Your task to perform on an android device: What's on the menu at McDonalds? Image 0: 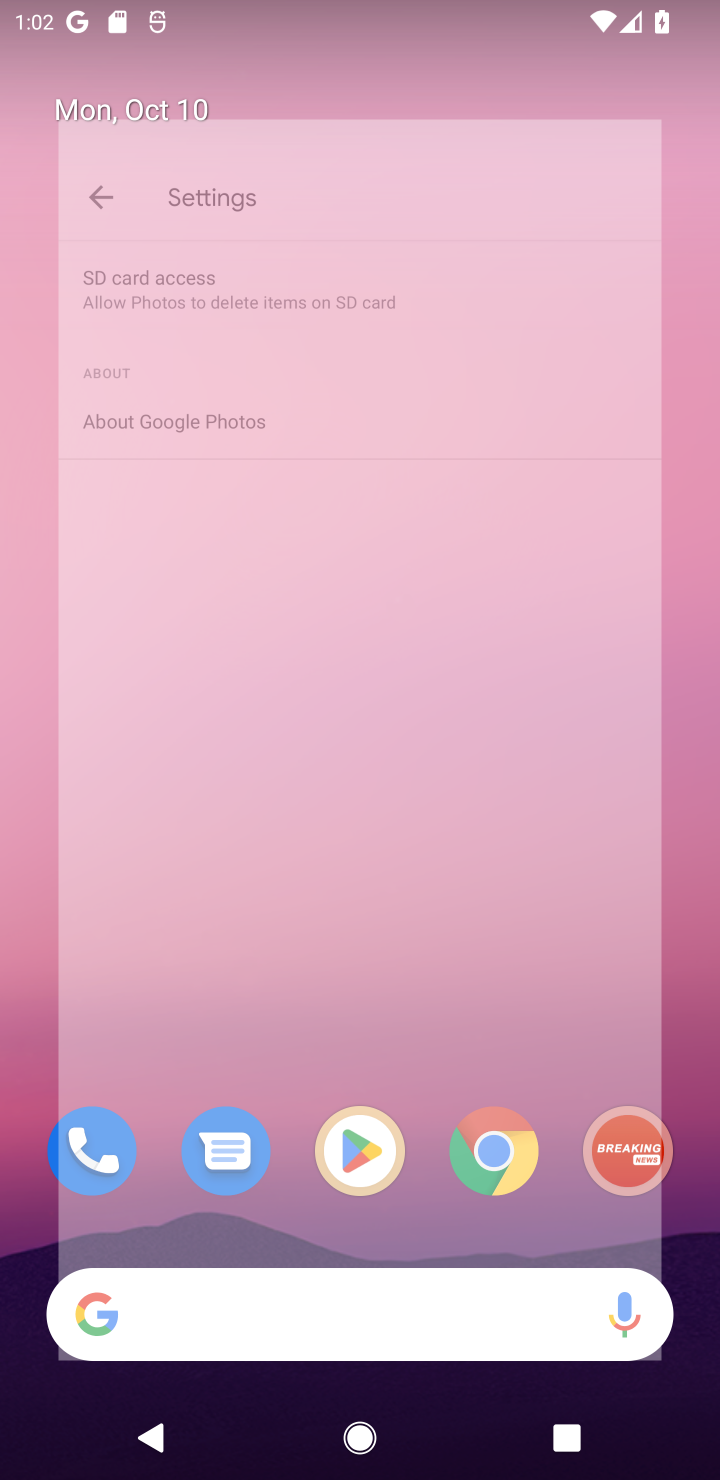
Step 0: press home button
Your task to perform on an android device: What's on the menu at McDonalds? Image 1: 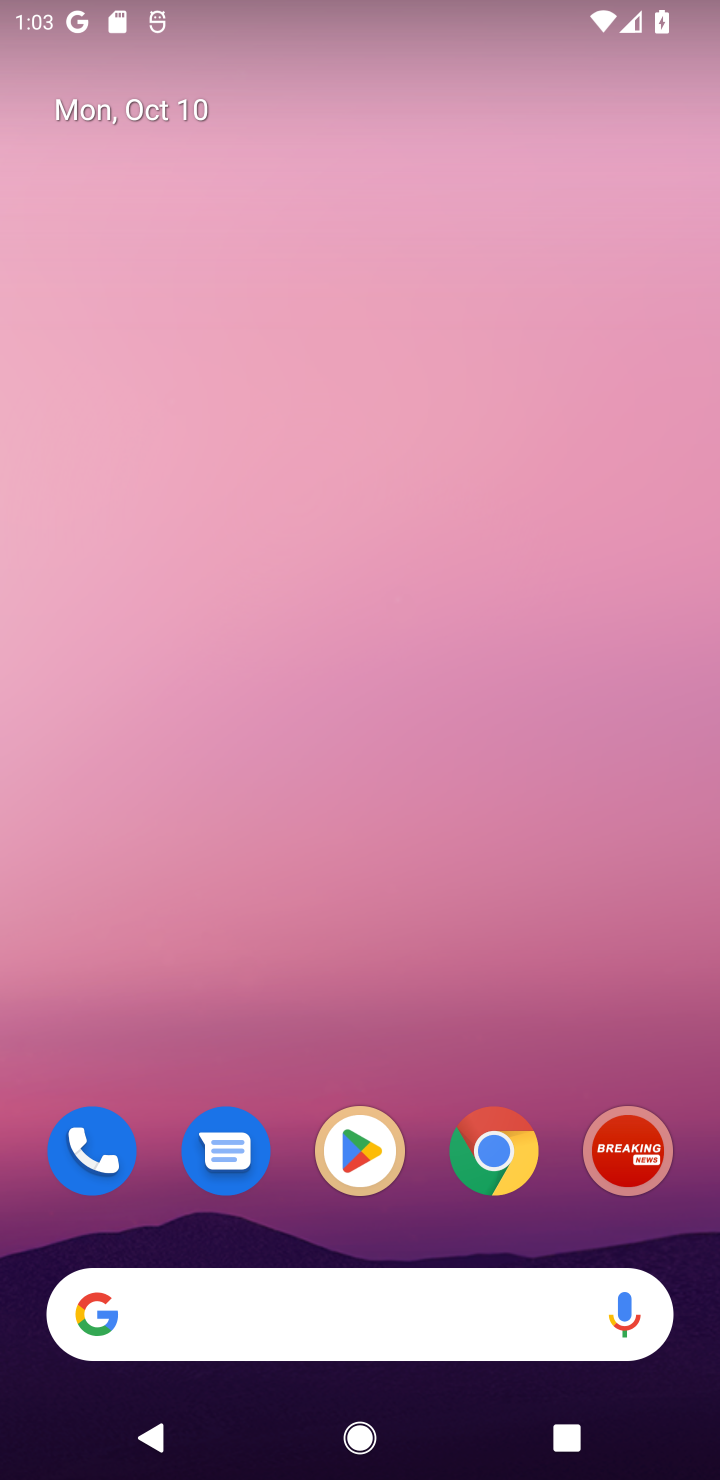
Step 1: click (372, 1296)
Your task to perform on an android device: What's on the menu at McDonalds? Image 2: 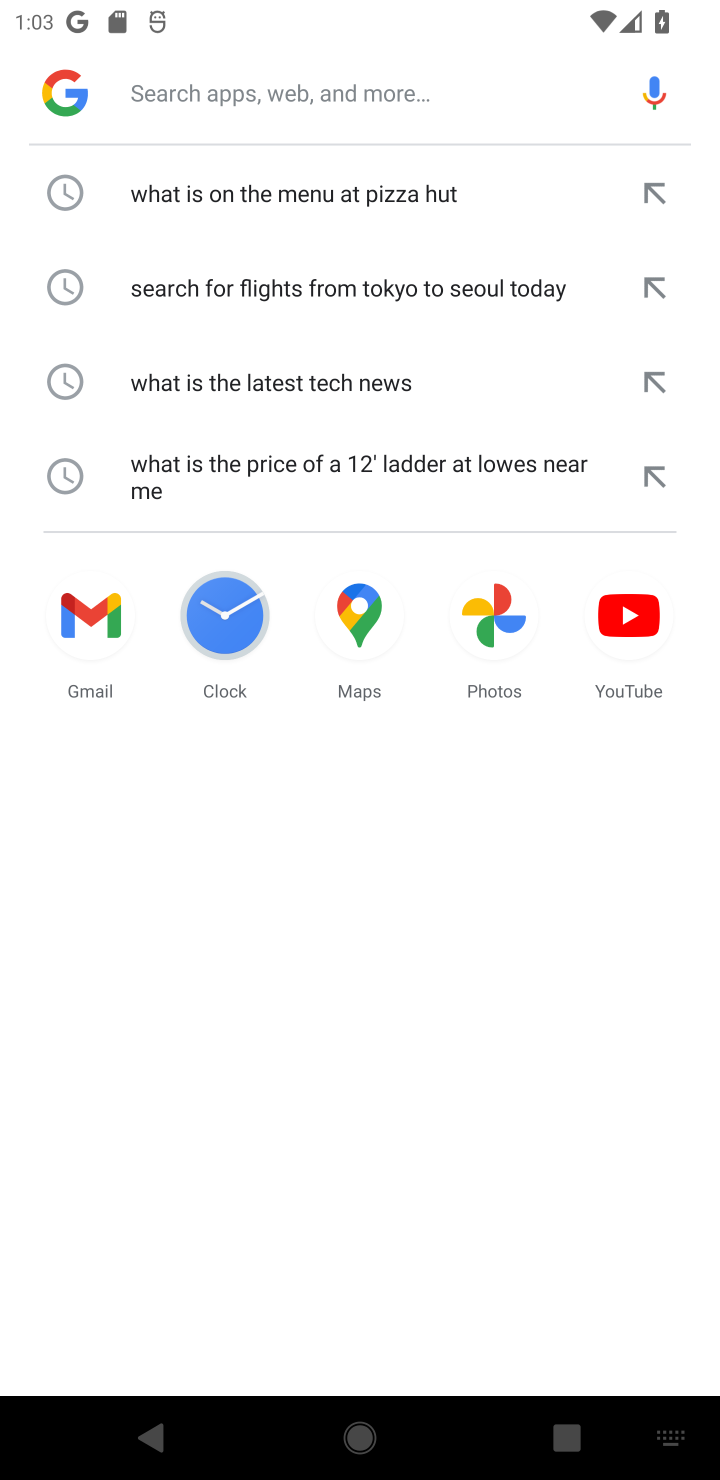
Step 2: type "What's on the menu at McDonalds?"
Your task to perform on an android device: What's on the menu at McDonalds? Image 3: 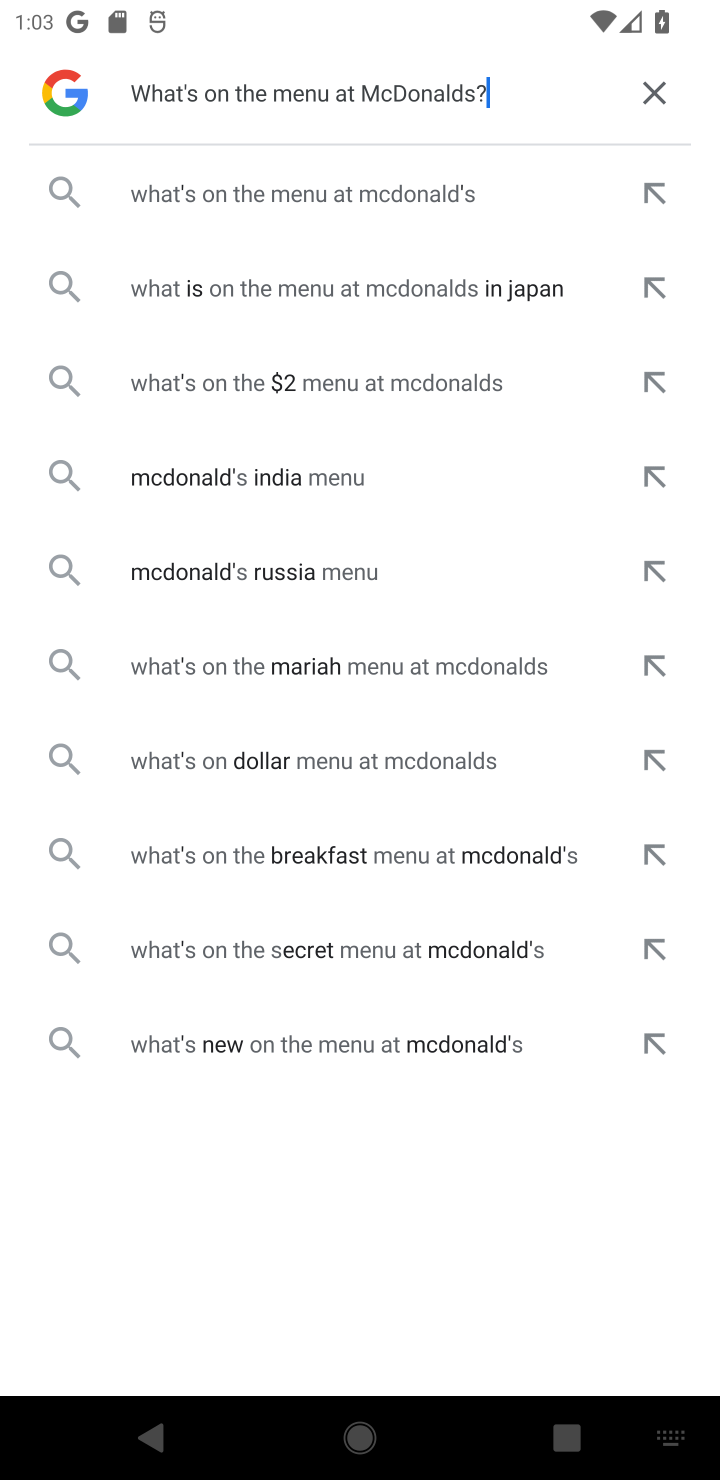
Step 3: click (306, 196)
Your task to perform on an android device: What's on the menu at McDonalds? Image 4: 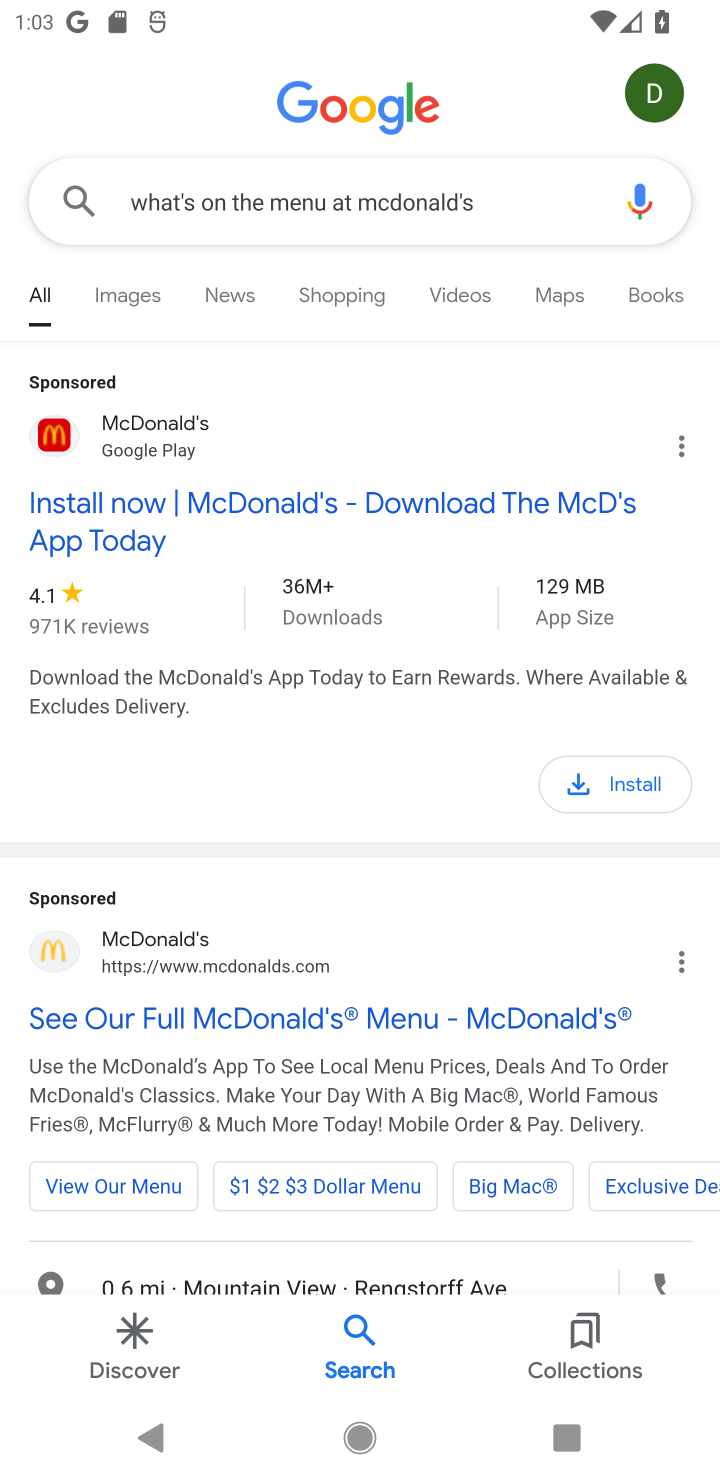
Step 4: click (378, 1010)
Your task to perform on an android device: What's on the menu at McDonalds? Image 5: 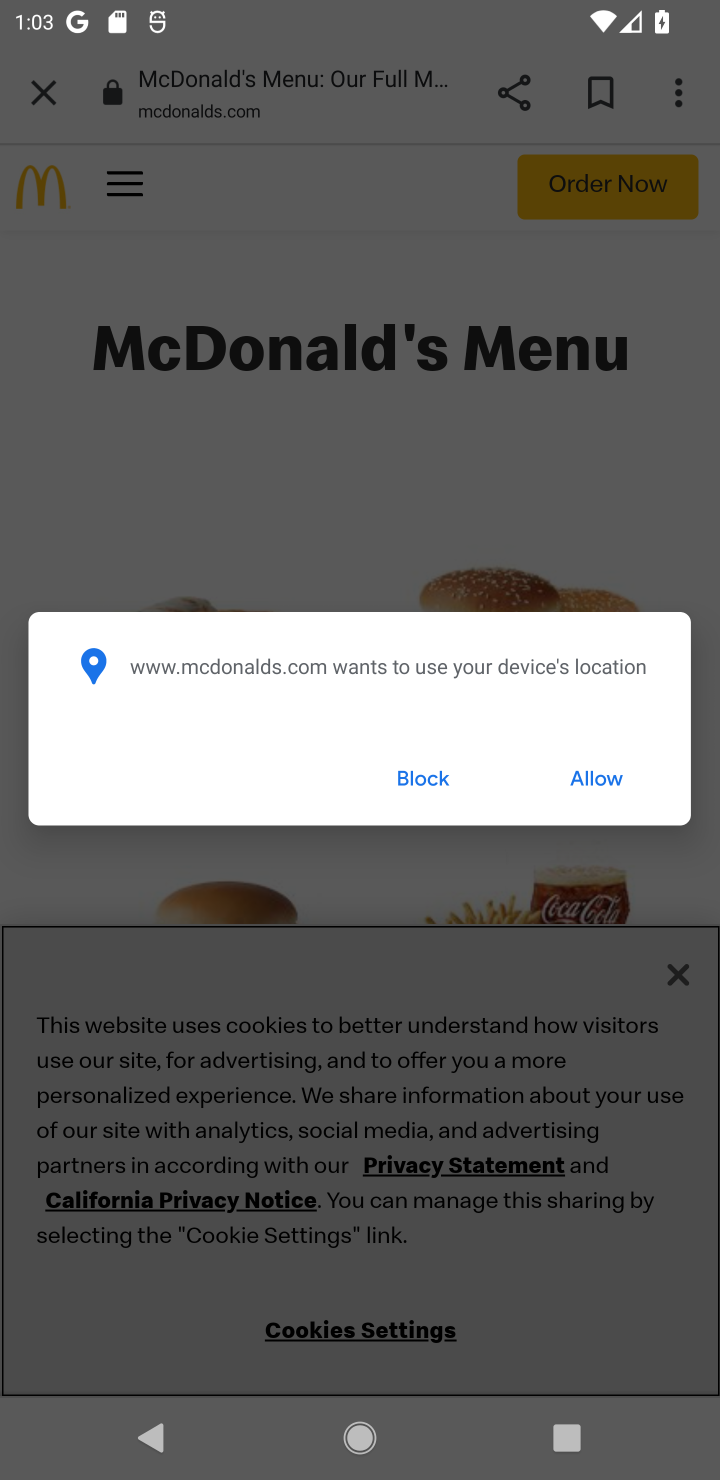
Step 5: click (591, 784)
Your task to perform on an android device: What's on the menu at McDonalds? Image 6: 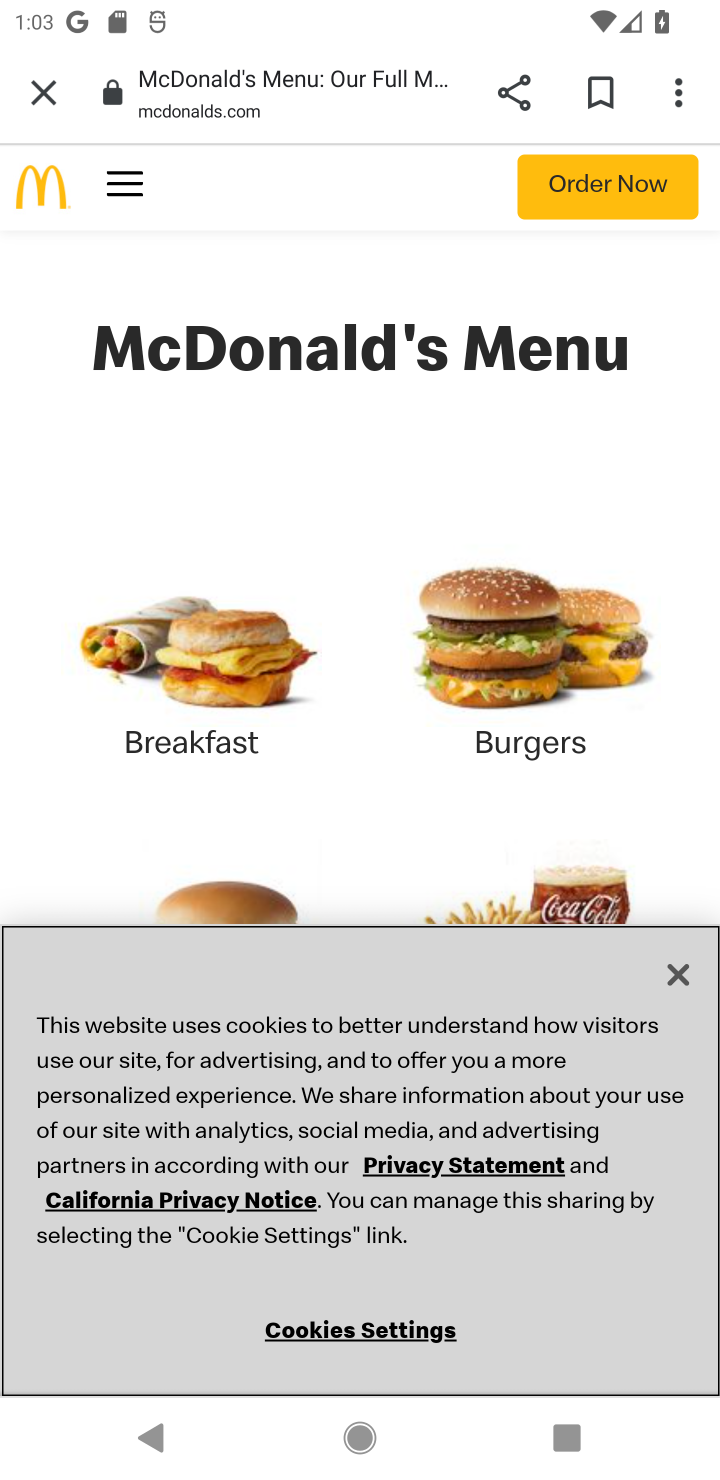
Step 6: click (679, 976)
Your task to perform on an android device: What's on the menu at McDonalds? Image 7: 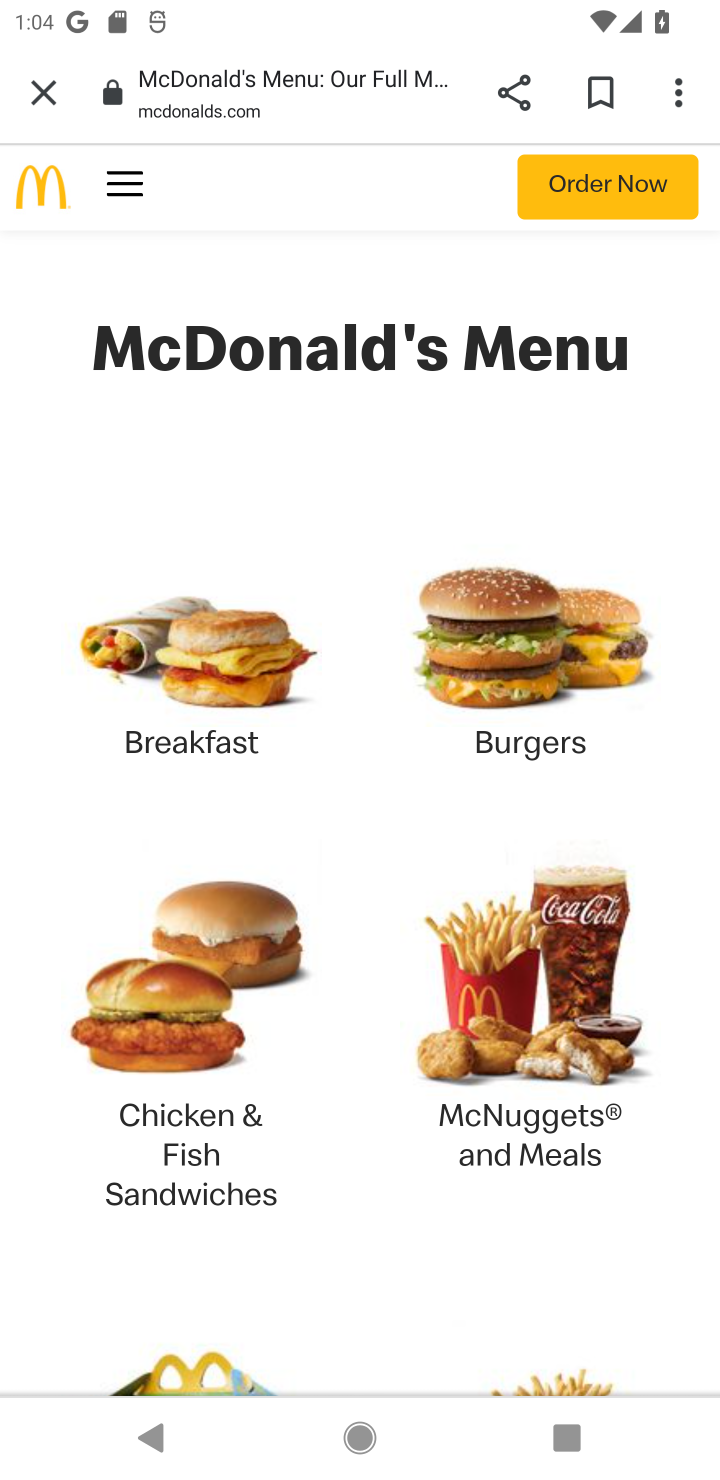
Step 7: task complete